Your task to perform on an android device: turn on the 24-hour format for clock Image 0: 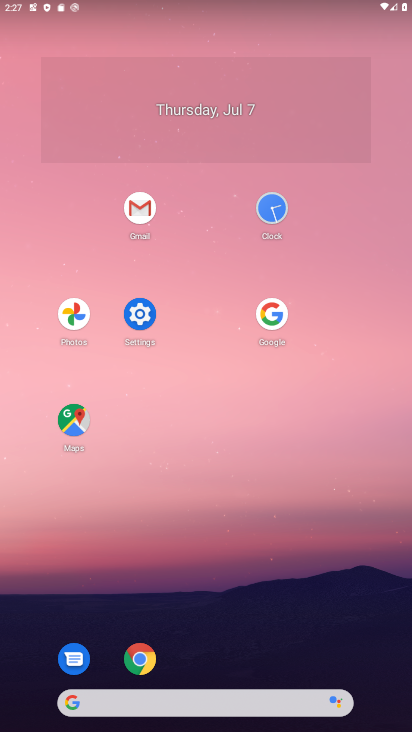
Step 0: drag from (245, 606) to (253, 195)
Your task to perform on an android device: turn on the 24-hour format for clock Image 1: 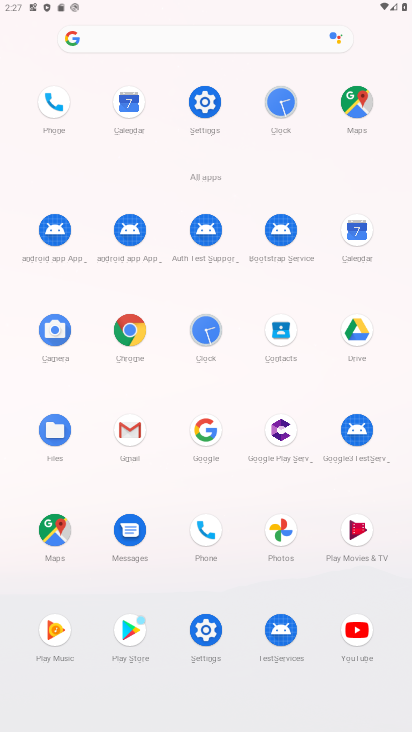
Step 1: drag from (281, 100) to (317, 242)
Your task to perform on an android device: turn on the 24-hour format for clock Image 2: 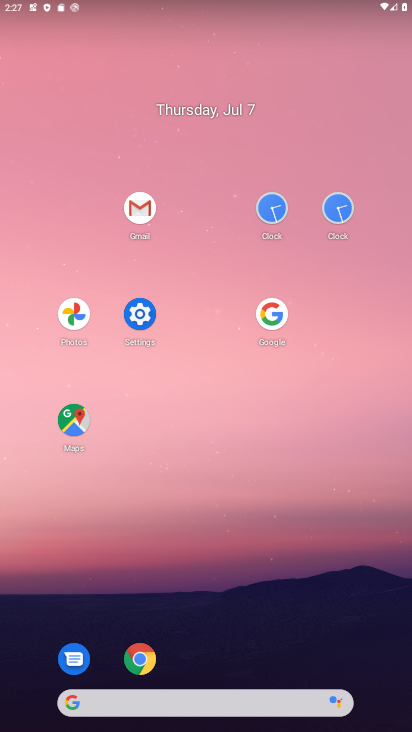
Step 2: click (265, 208)
Your task to perform on an android device: turn on the 24-hour format for clock Image 3: 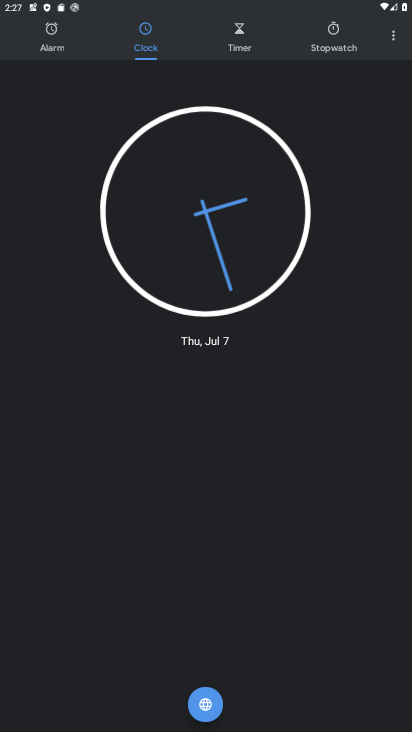
Step 3: click (397, 47)
Your task to perform on an android device: turn on the 24-hour format for clock Image 4: 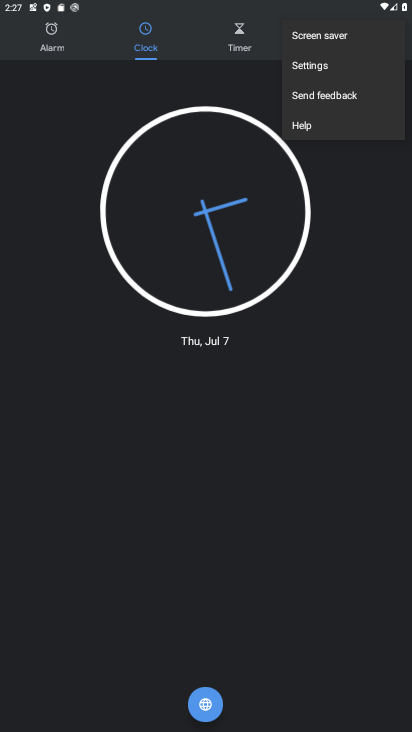
Step 4: click (327, 57)
Your task to perform on an android device: turn on the 24-hour format for clock Image 5: 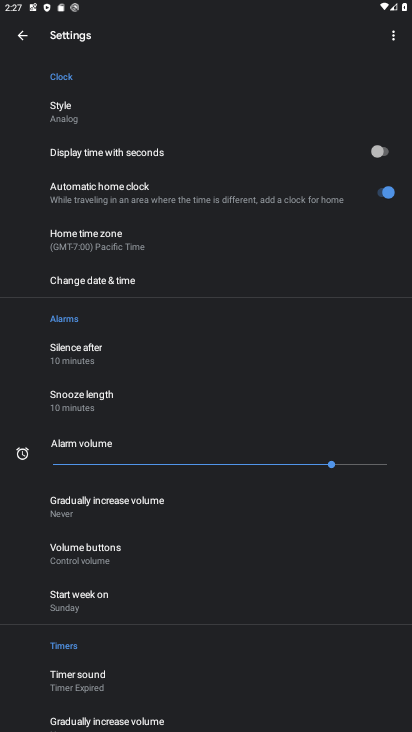
Step 5: drag from (191, 474) to (223, 318)
Your task to perform on an android device: turn on the 24-hour format for clock Image 6: 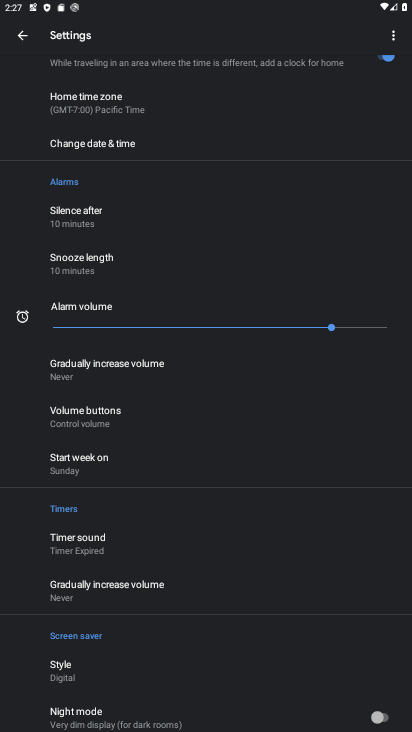
Step 6: drag from (276, 547) to (248, 325)
Your task to perform on an android device: turn on the 24-hour format for clock Image 7: 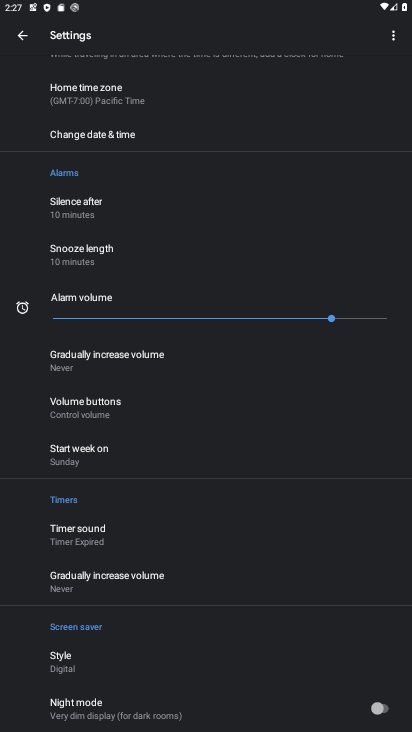
Step 7: drag from (248, 653) to (247, 380)
Your task to perform on an android device: turn on the 24-hour format for clock Image 8: 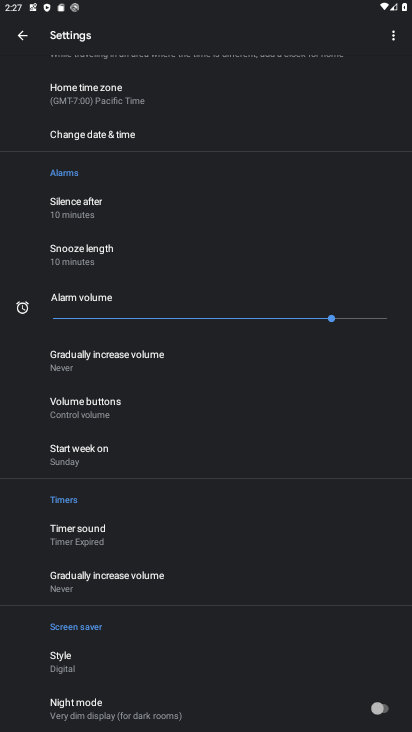
Step 8: drag from (246, 375) to (265, 644)
Your task to perform on an android device: turn on the 24-hour format for clock Image 9: 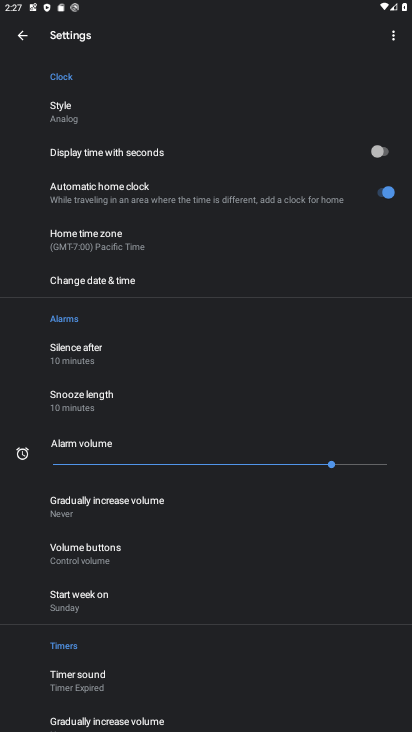
Step 9: drag from (225, 384) to (271, 694)
Your task to perform on an android device: turn on the 24-hour format for clock Image 10: 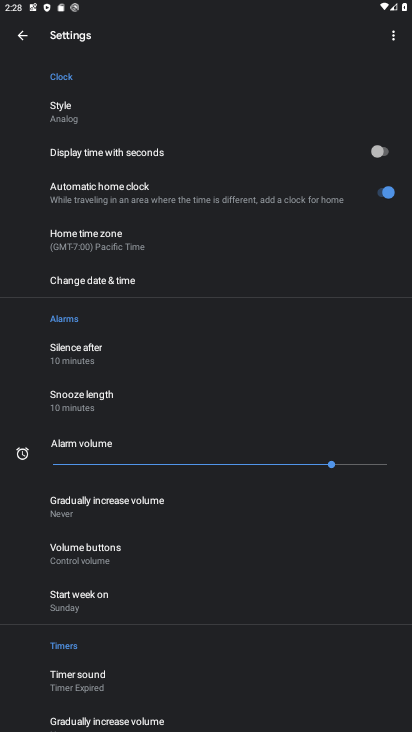
Step 10: click (103, 280)
Your task to perform on an android device: turn on the 24-hour format for clock Image 11: 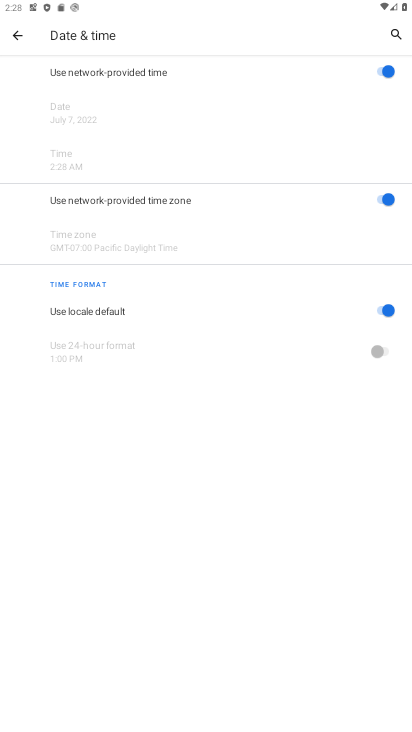
Step 11: click (389, 318)
Your task to perform on an android device: turn on the 24-hour format for clock Image 12: 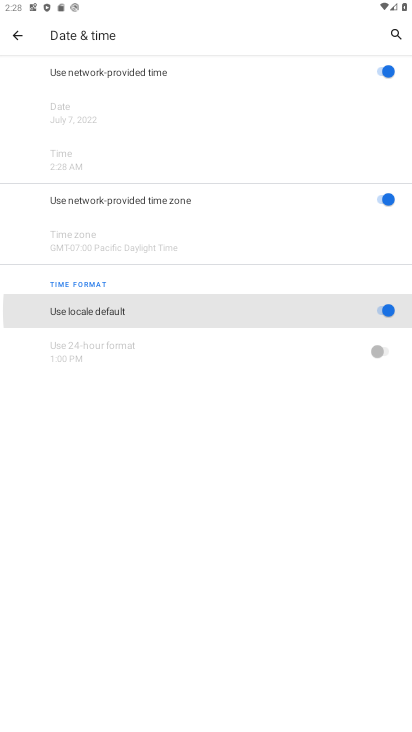
Step 12: click (396, 347)
Your task to perform on an android device: turn on the 24-hour format for clock Image 13: 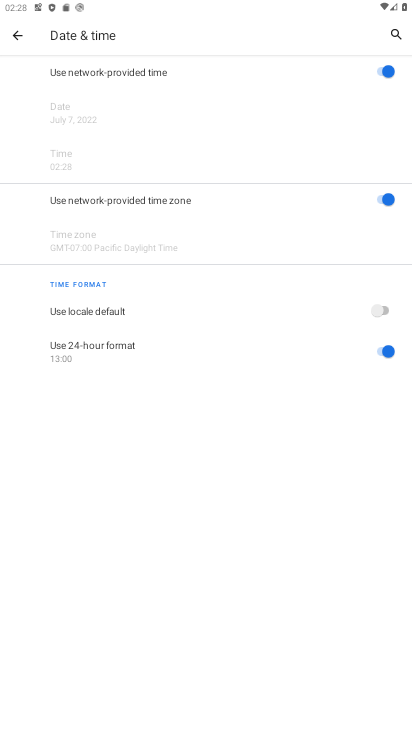
Step 13: task complete